Your task to perform on an android device: Open settings Image 0: 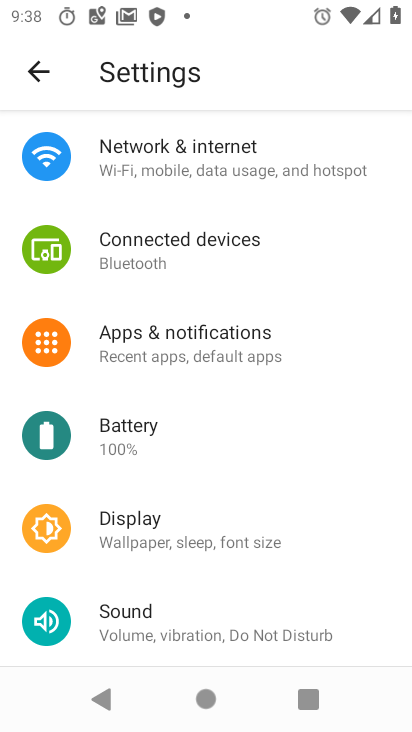
Step 0: press home button
Your task to perform on an android device: Open settings Image 1: 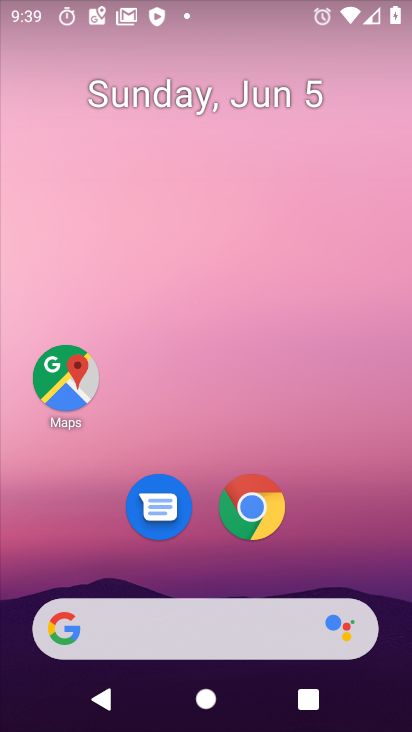
Step 1: drag from (209, 677) to (288, 137)
Your task to perform on an android device: Open settings Image 2: 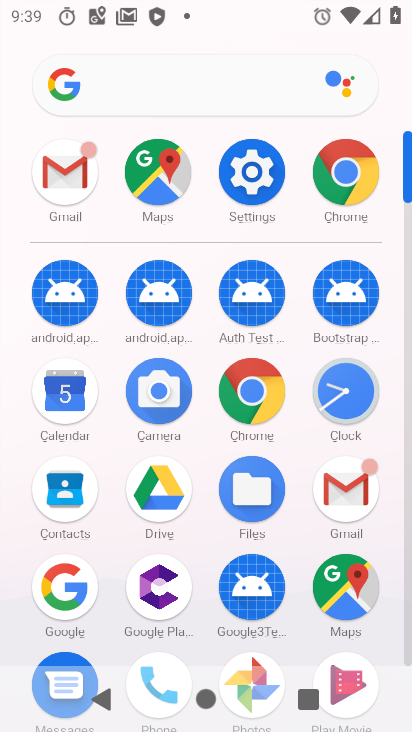
Step 2: click (248, 165)
Your task to perform on an android device: Open settings Image 3: 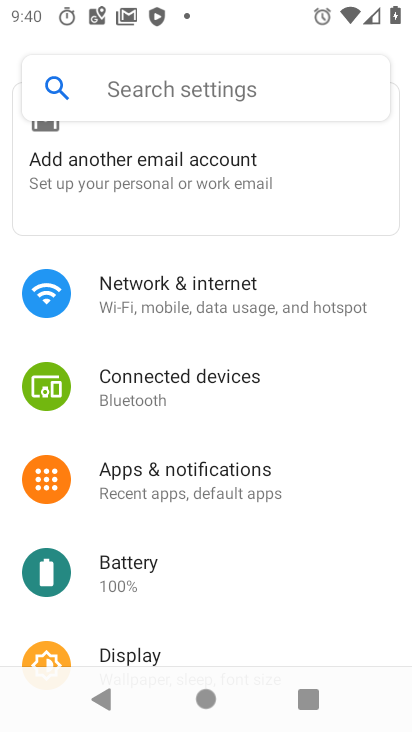
Step 3: task complete